Your task to perform on an android device: toggle location history Image 0: 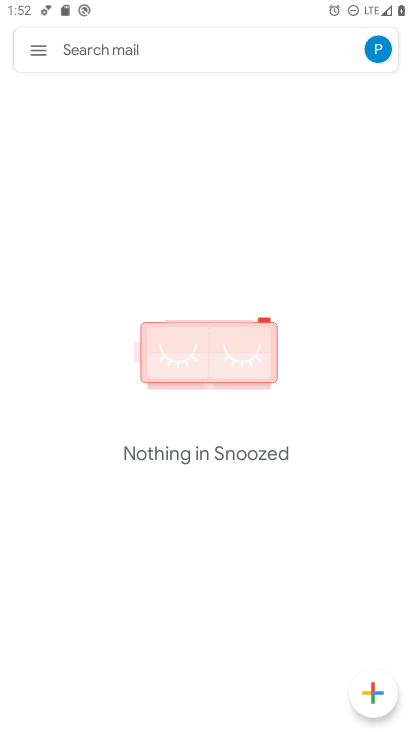
Step 0: press home button
Your task to perform on an android device: toggle location history Image 1: 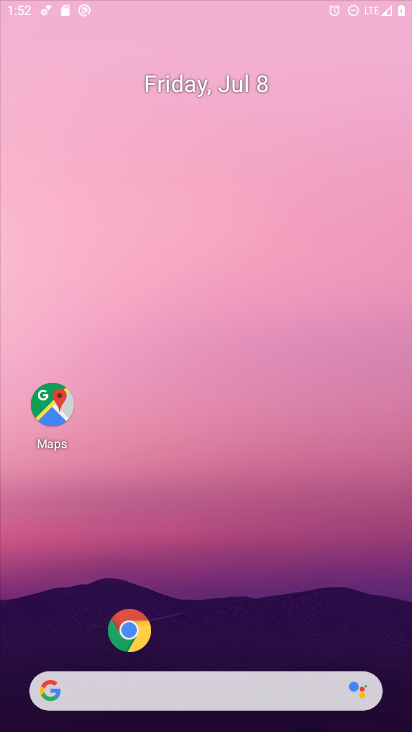
Step 1: drag from (272, 706) to (351, 108)
Your task to perform on an android device: toggle location history Image 2: 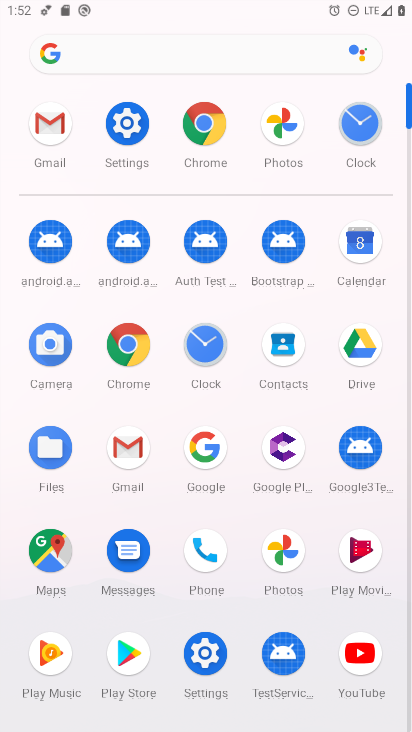
Step 2: click (126, 123)
Your task to perform on an android device: toggle location history Image 3: 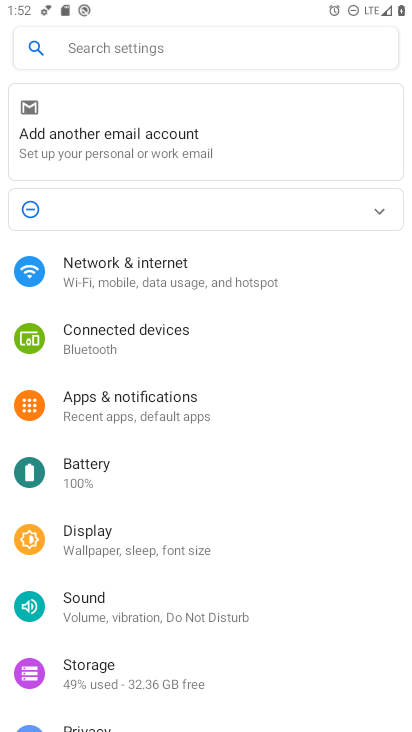
Step 3: drag from (115, 688) to (123, 315)
Your task to perform on an android device: toggle location history Image 4: 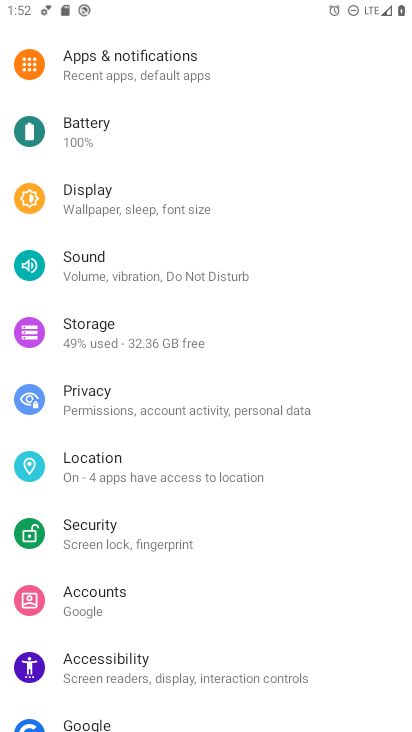
Step 4: drag from (167, 691) to (210, 448)
Your task to perform on an android device: toggle location history Image 5: 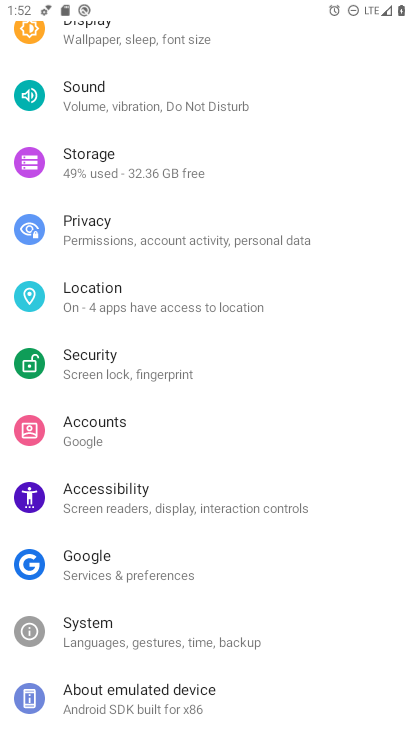
Step 5: click (130, 294)
Your task to perform on an android device: toggle location history Image 6: 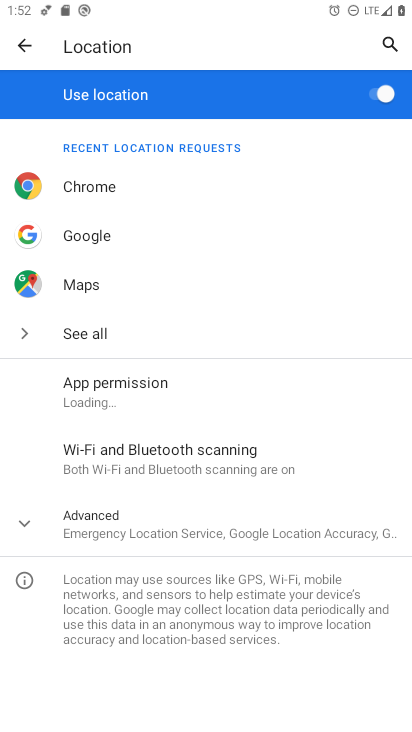
Step 6: click (175, 523)
Your task to perform on an android device: toggle location history Image 7: 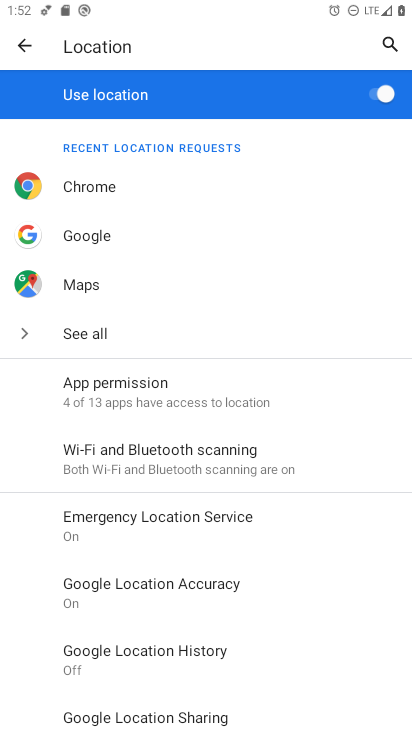
Step 7: click (204, 649)
Your task to perform on an android device: toggle location history Image 8: 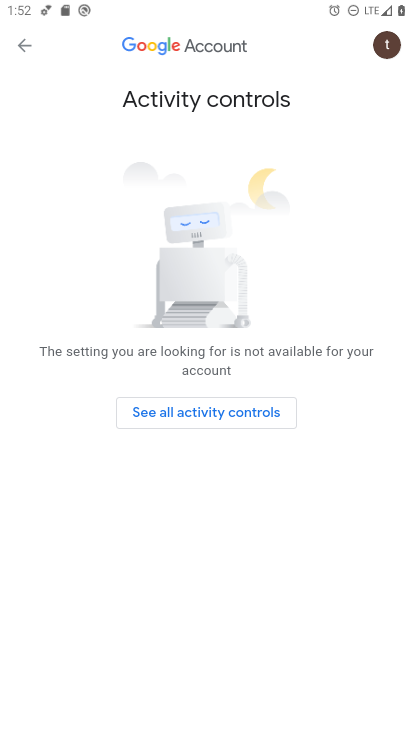
Step 8: click (234, 418)
Your task to perform on an android device: toggle location history Image 9: 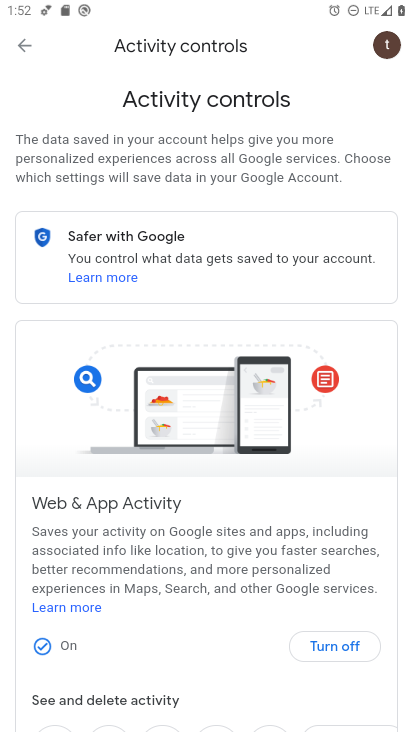
Step 9: click (343, 646)
Your task to perform on an android device: toggle location history Image 10: 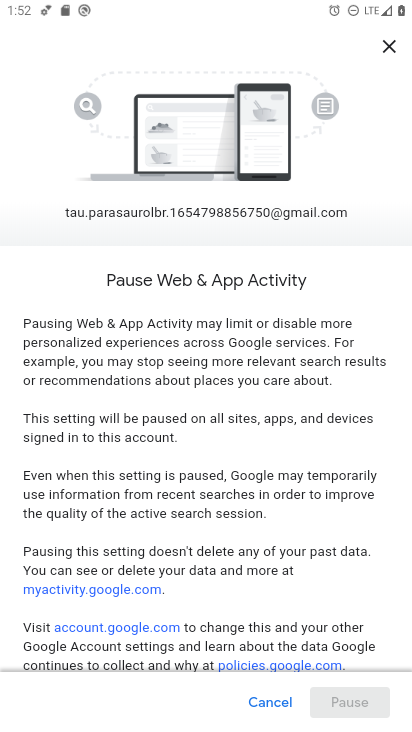
Step 10: drag from (317, 663) to (340, 110)
Your task to perform on an android device: toggle location history Image 11: 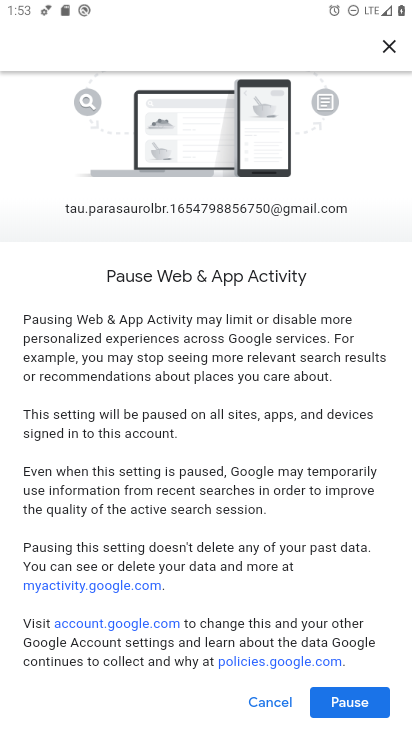
Step 11: click (367, 704)
Your task to perform on an android device: toggle location history Image 12: 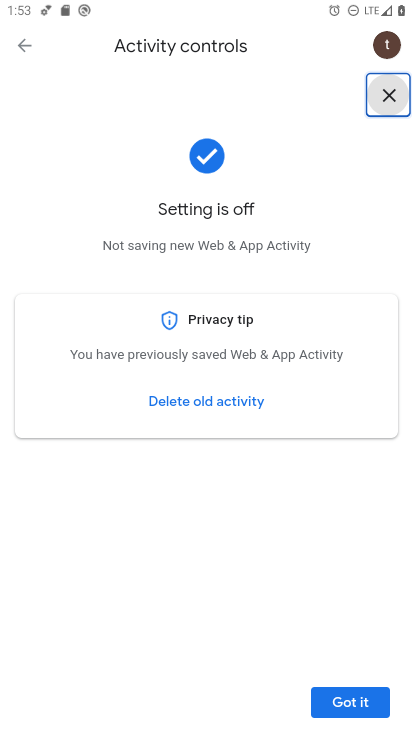
Step 12: click (355, 705)
Your task to perform on an android device: toggle location history Image 13: 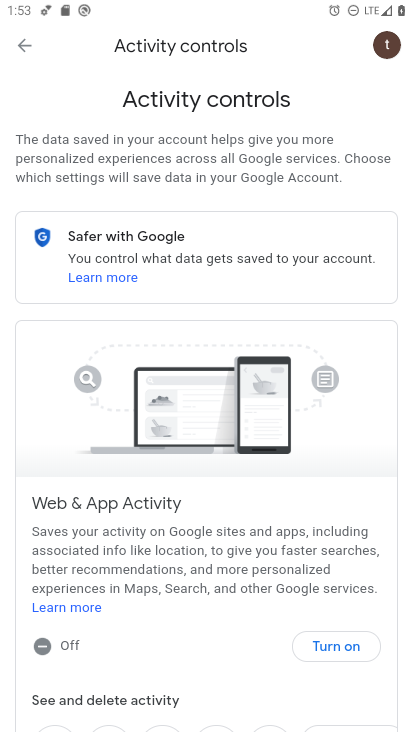
Step 13: task complete